Your task to perform on an android device: find snoozed emails in the gmail app Image 0: 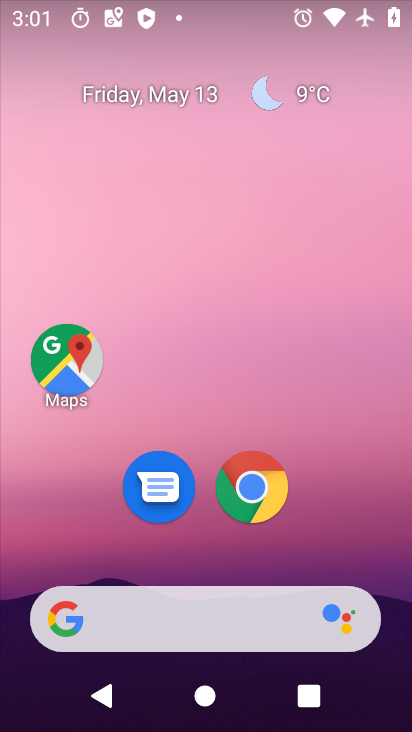
Step 0: drag from (198, 563) to (192, 88)
Your task to perform on an android device: find snoozed emails in the gmail app Image 1: 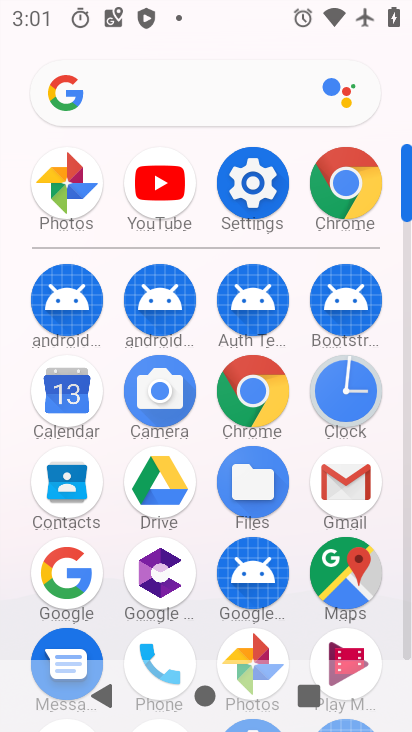
Step 1: click (343, 483)
Your task to perform on an android device: find snoozed emails in the gmail app Image 2: 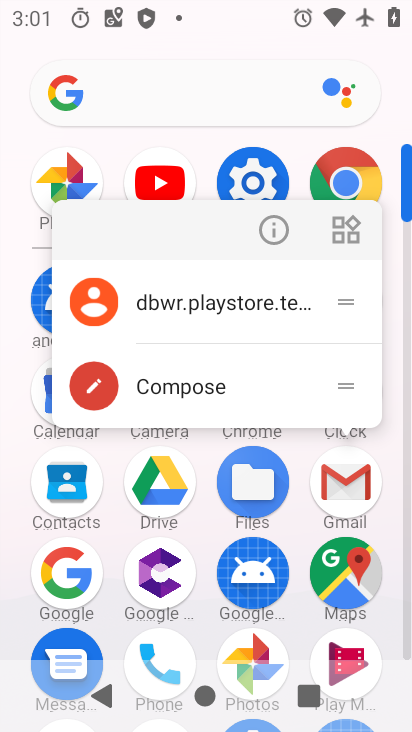
Step 2: click (343, 483)
Your task to perform on an android device: find snoozed emails in the gmail app Image 3: 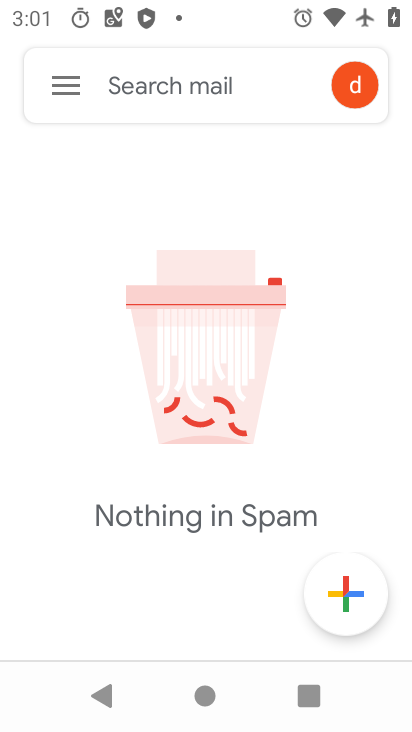
Step 3: click (69, 82)
Your task to perform on an android device: find snoozed emails in the gmail app Image 4: 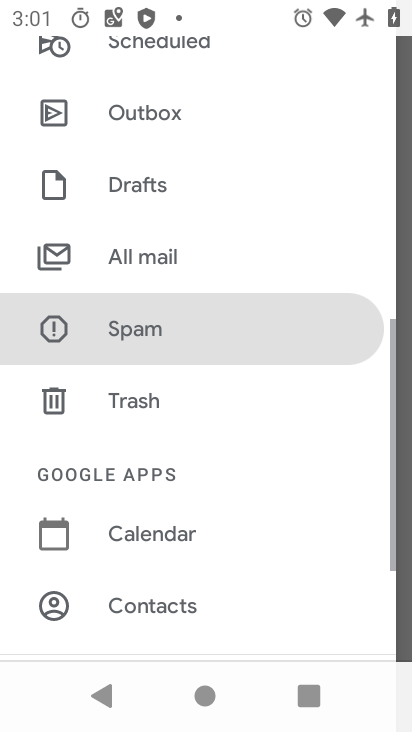
Step 4: click (157, 257)
Your task to perform on an android device: find snoozed emails in the gmail app Image 5: 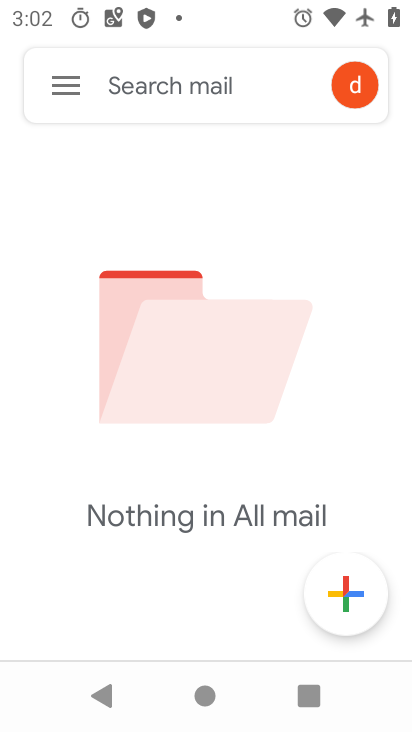
Step 5: task complete